Your task to perform on an android device: open device folders in google photos Image 0: 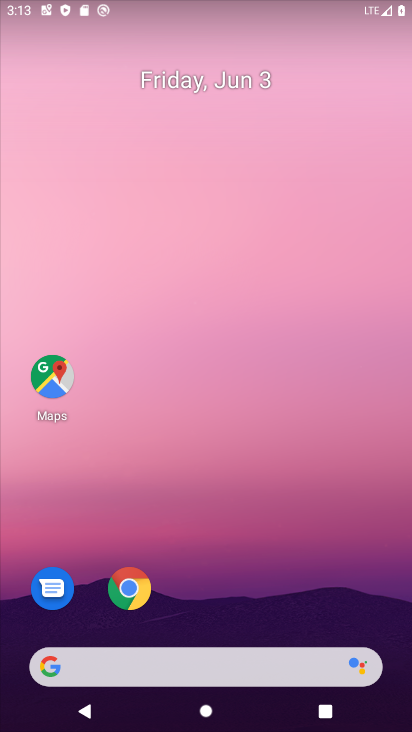
Step 0: drag from (131, 322) to (296, 39)
Your task to perform on an android device: open device folders in google photos Image 1: 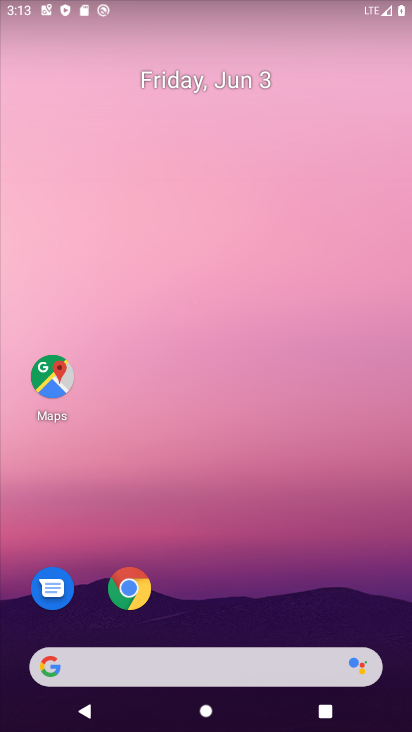
Step 1: drag from (287, 338) to (410, 375)
Your task to perform on an android device: open device folders in google photos Image 2: 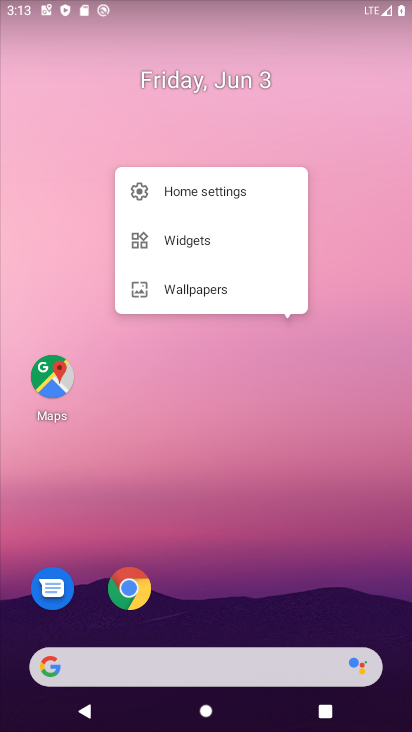
Step 2: click (411, 345)
Your task to perform on an android device: open device folders in google photos Image 3: 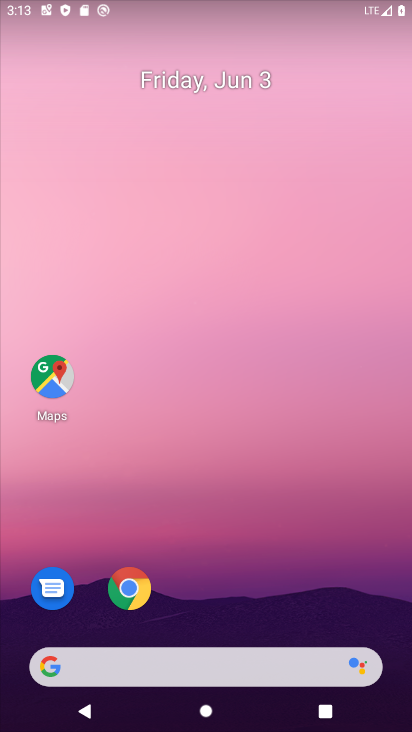
Step 3: press home button
Your task to perform on an android device: open device folders in google photos Image 4: 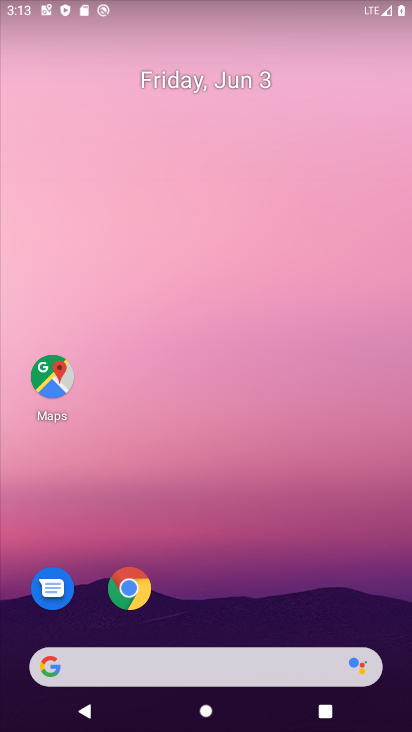
Step 4: drag from (70, 579) to (286, 186)
Your task to perform on an android device: open device folders in google photos Image 5: 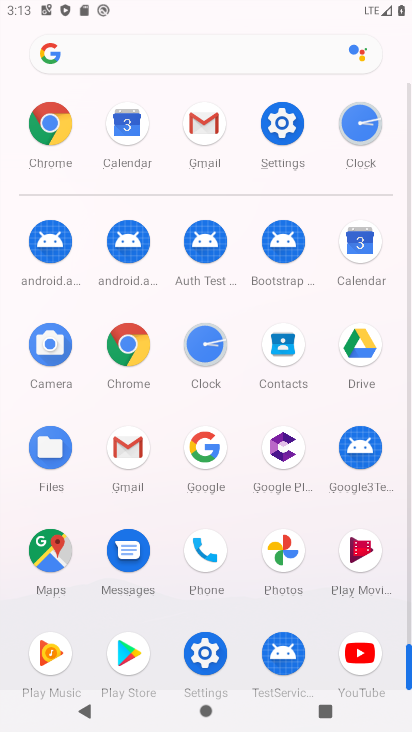
Step 5: click (267, 556)
Your task to perform on an android device: open device folders in google photos Image 6: 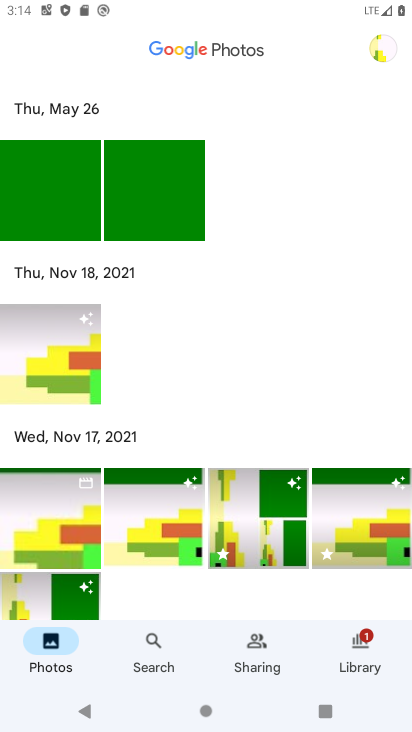
Step 6: drag from (154, 106) to (143, 495)
Your task to perform on an android device: open device folders in google photos Image 7: 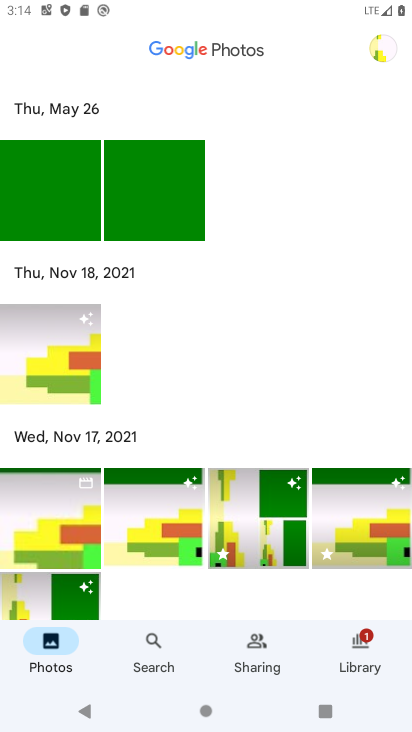
Step 7: drag from (70, 67) to (116, 424)
Your task to perform on an android device: open device folders in google photos Image 8: 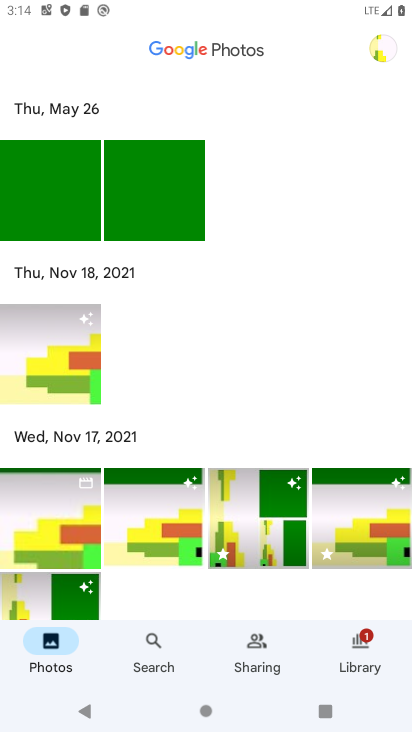
Step 8: drag from (344, 162) to (312, 522)
Your task to perform on an android device: open device folders in google photos Image 9: 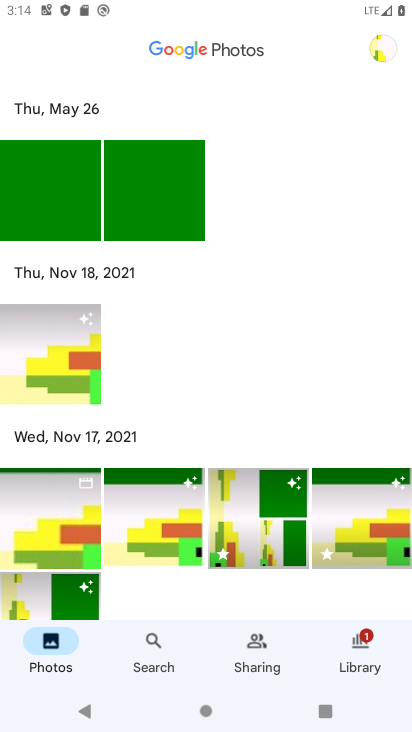
Step 9: click (261, 651)
Your task to perform on an android device: open device folders in google photos Image 10: 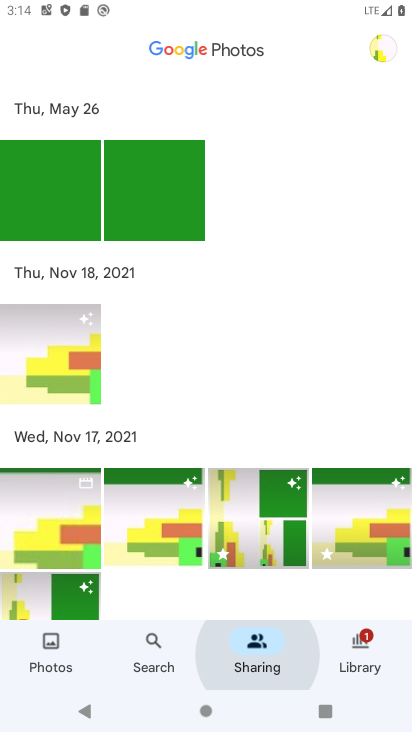
Step 10: task complete